Your task to perform on an android device: Toggle the flashlight Image 0: 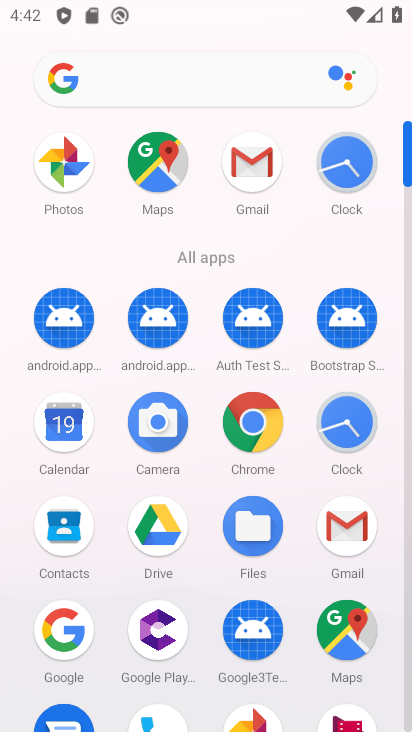
Step 0: drag from (189, 521) to (204, 259)
Your task to perform on an android device: Toggle the flashlight Image 1: 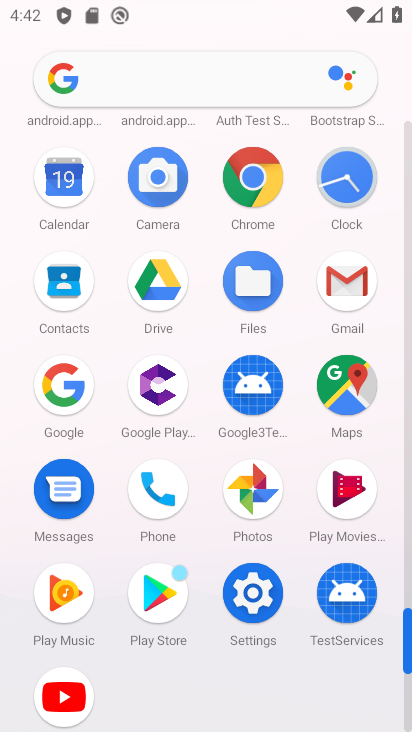
Step 1: drag from (222, 446) to (199, 328)
Your task to perform on an android device: Toggle the flashlight Image 2: 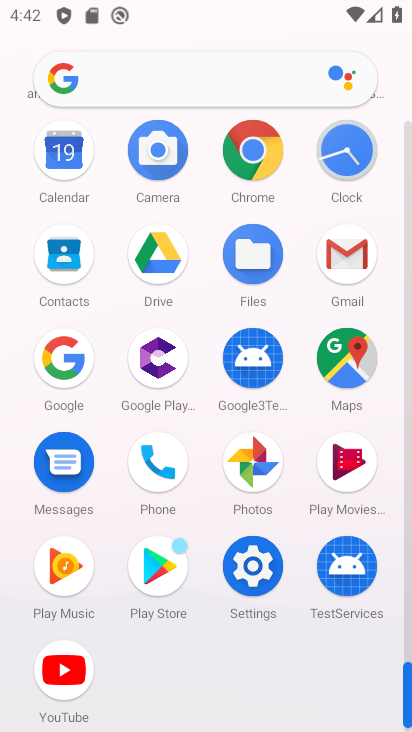
Step 2: click (261, 562)
Your task to perform on an android device: Toggle the flashlight Image 3: 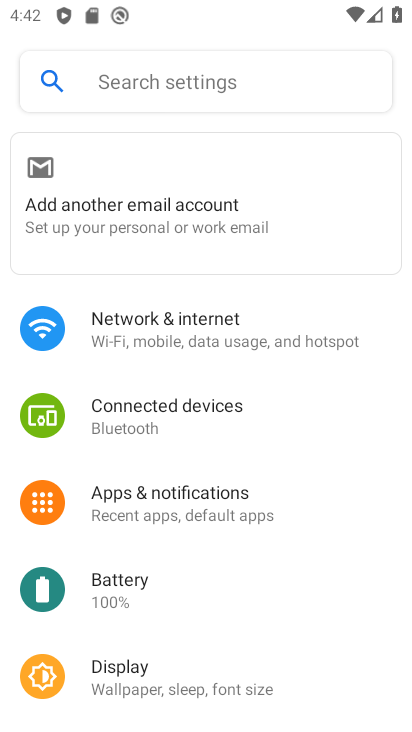
Step 3: click (250, 79)
Your task to perform on an android device: Toggle the flashlight Image 4: 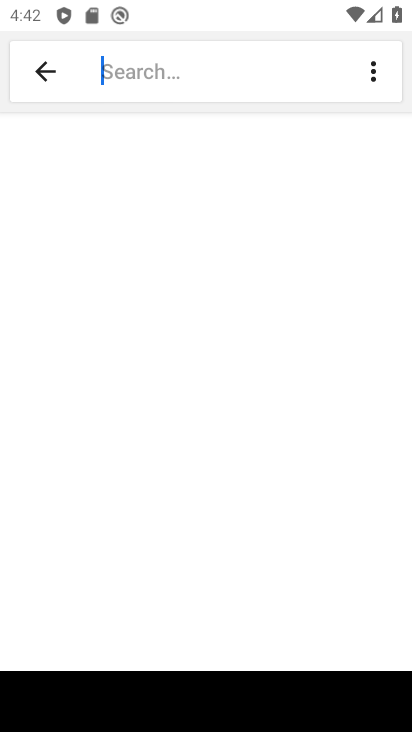
Step 4: type "Flashlight"
Your task to perform on an android device: Toggle the flashlight Image 5: 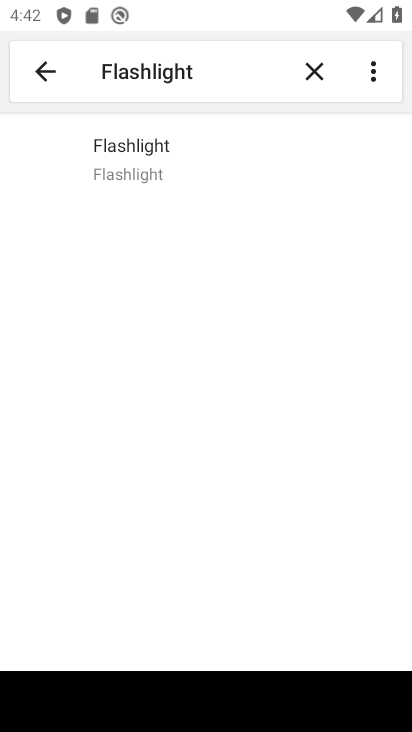
Step 5: click (124, 145)
Your task to perform on an android device: Toggle the flashlight Image 6: 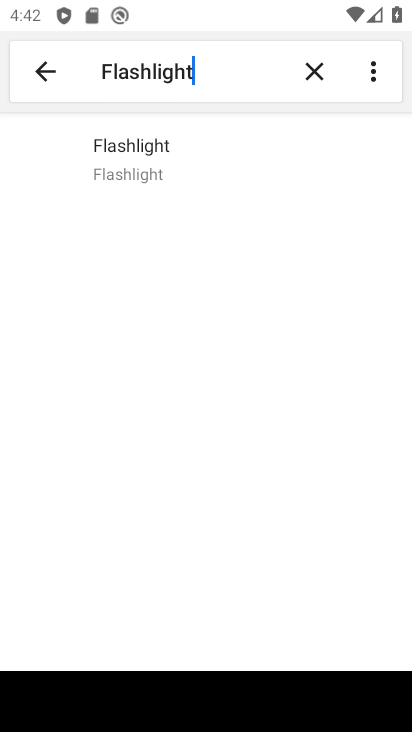
Step 6: task complete